Your task to perform on an android device: Empty the shopping cart on bestbuy. Image 0: 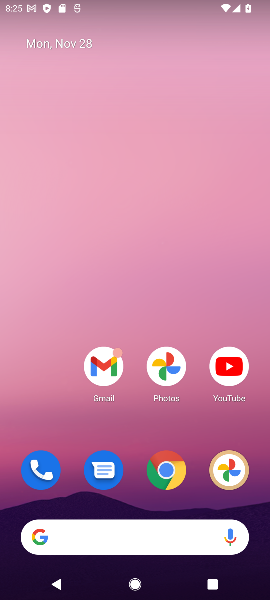
Step 0: drag from (130, 397) to (154, 238)
Your task to perform on an android device: Empty the shopping cart on bestbuy. Image 1: 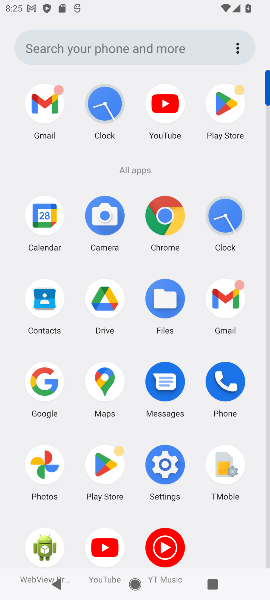
Step 1: click (42, 385)
Your task to perform on an android device: Empty the shopping cart on bestbuy. Image 2: 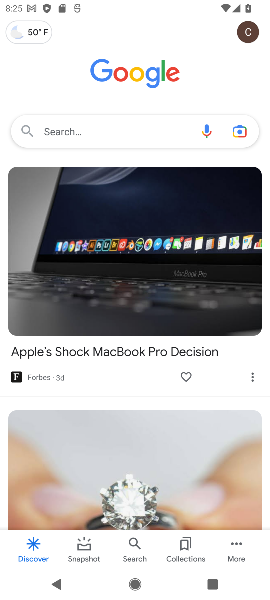
Step 2: click (101, 124)
Your task to perform on an android device: Empty the shopping cart on bestbuy. Image 3: 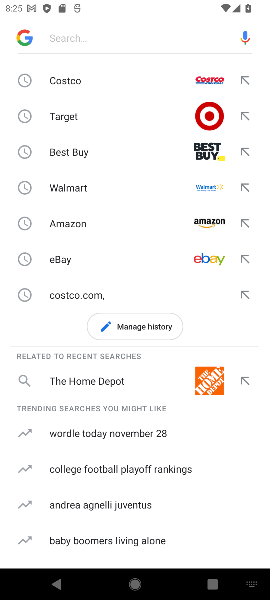
Step 3: click (60, 159)
Your task to perform on an android device: Empty the shopping cart on bestbuy. Image 4: 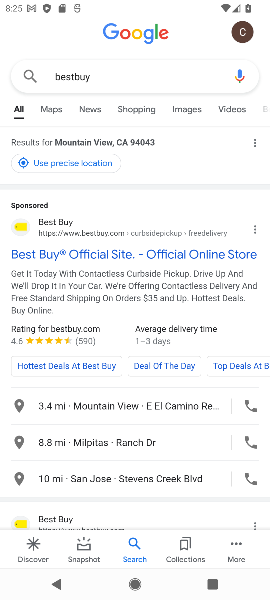
Step 4: click (45, 223)
Your task to perform on an android device: Empty the shopping cart on bestbuy. Image 5: 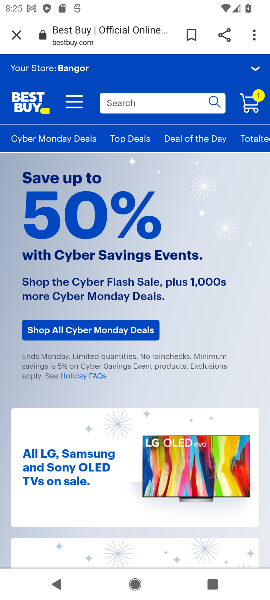
Step 5: click (249, 101)
Your task to perform on an android device: Empty the shopping cart on bestbuy. Image 6: 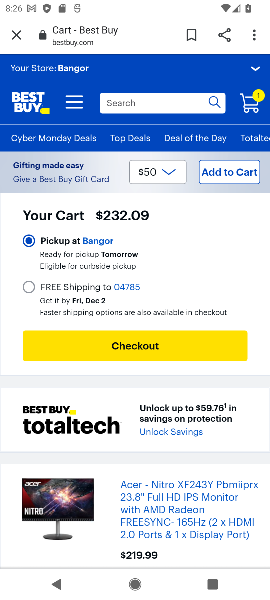
Step 6: drag from (143, 402) to (154, 254)
Your task to perform on an android device: Empty the shopping cart on bestbuy. Image 7: 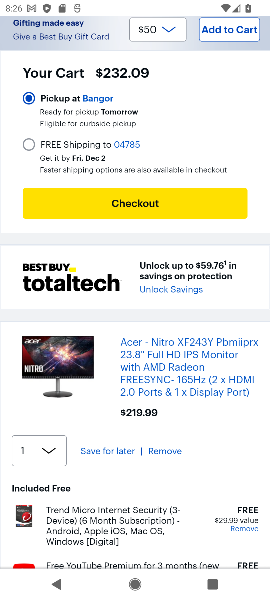
Step 7: click (158, 451)
Your task to perform on an android device: Empty the shopping cart on bestbuy. Image 8: 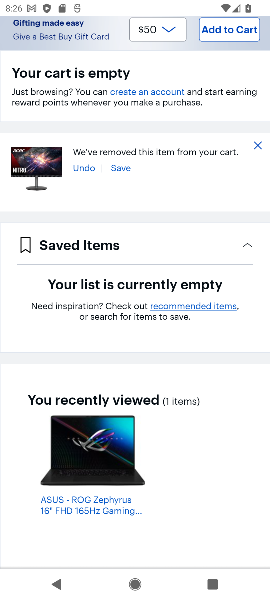
Step 8: task complete